Your task to perform on an android device: Open CNN.com Image 0: 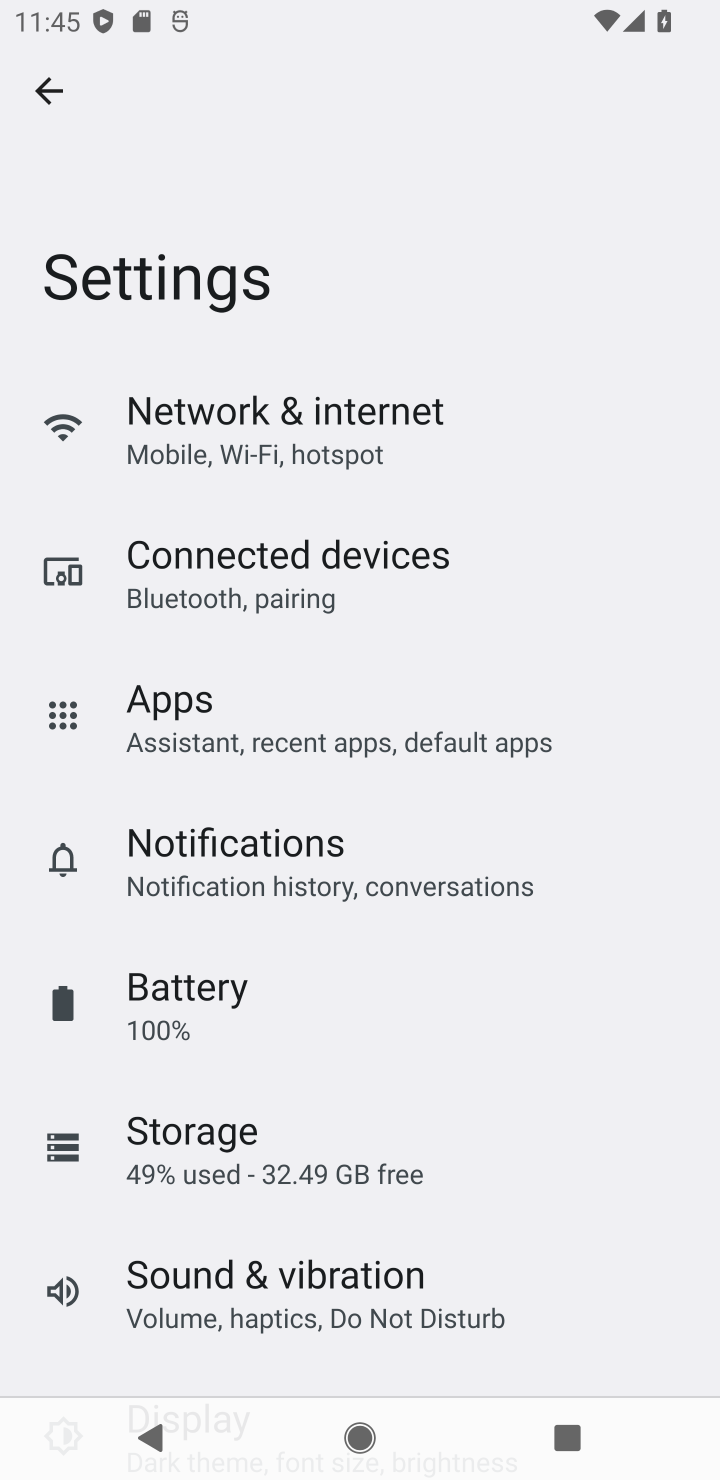
Step 0: press home button
Your task to perform on an android device: Open CNN.com Image 1: 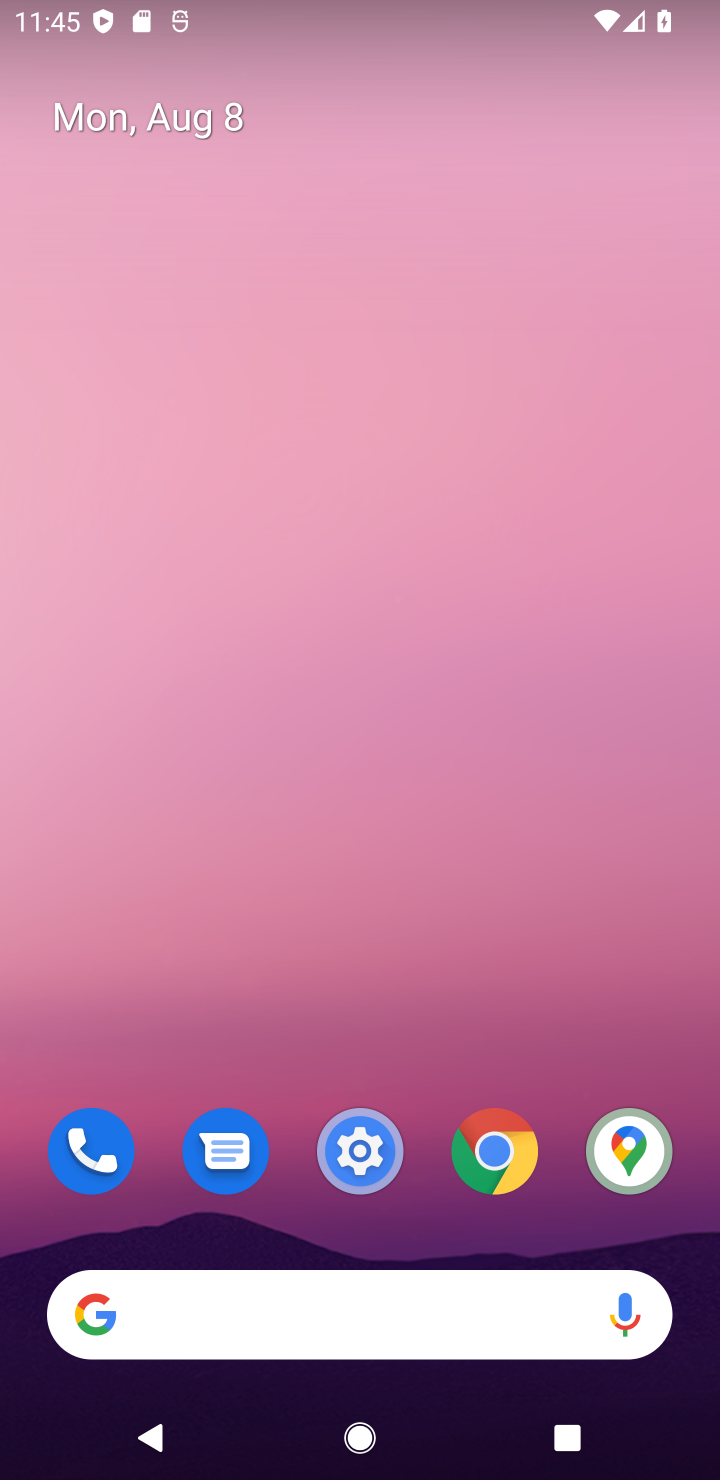
Step 1: drag from (322, 1270) to (109, 486)
Your task to perform on an android device: Open CNN.com Image 2: 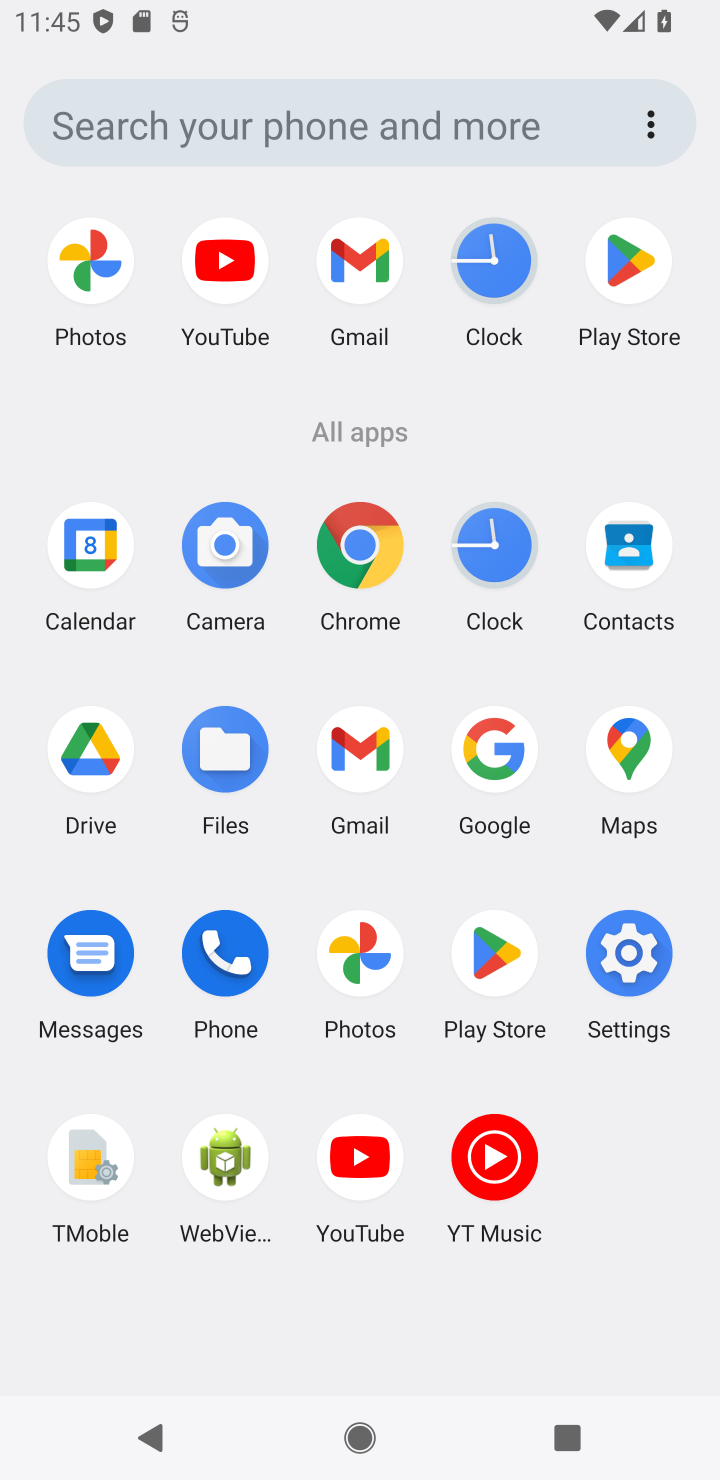
Step 2: click (479, 750)
Your task to perform on an android device: Open CNN.com Image 3: 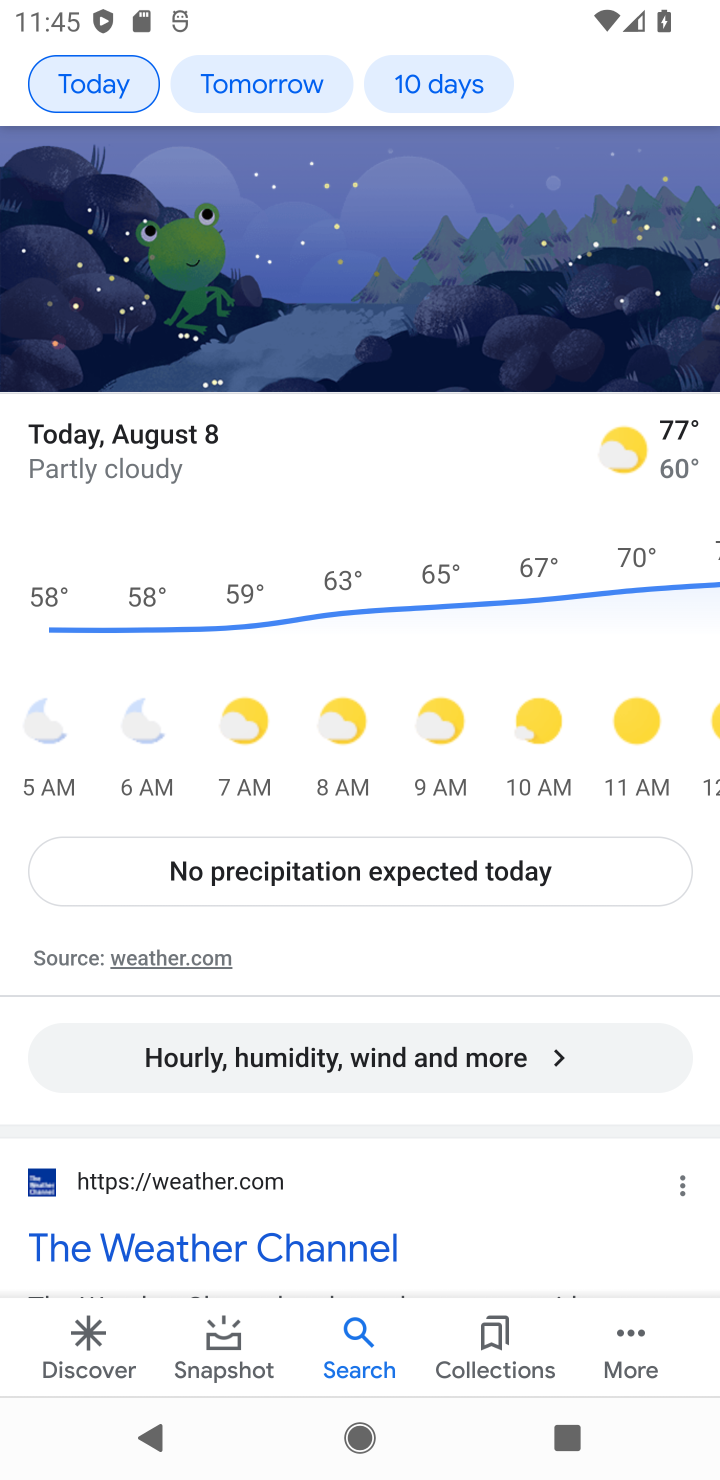
Step 3: drag from (405, 398) to (556, 1187)
Your task to perform on an android device: Open CNN.com Image 4: 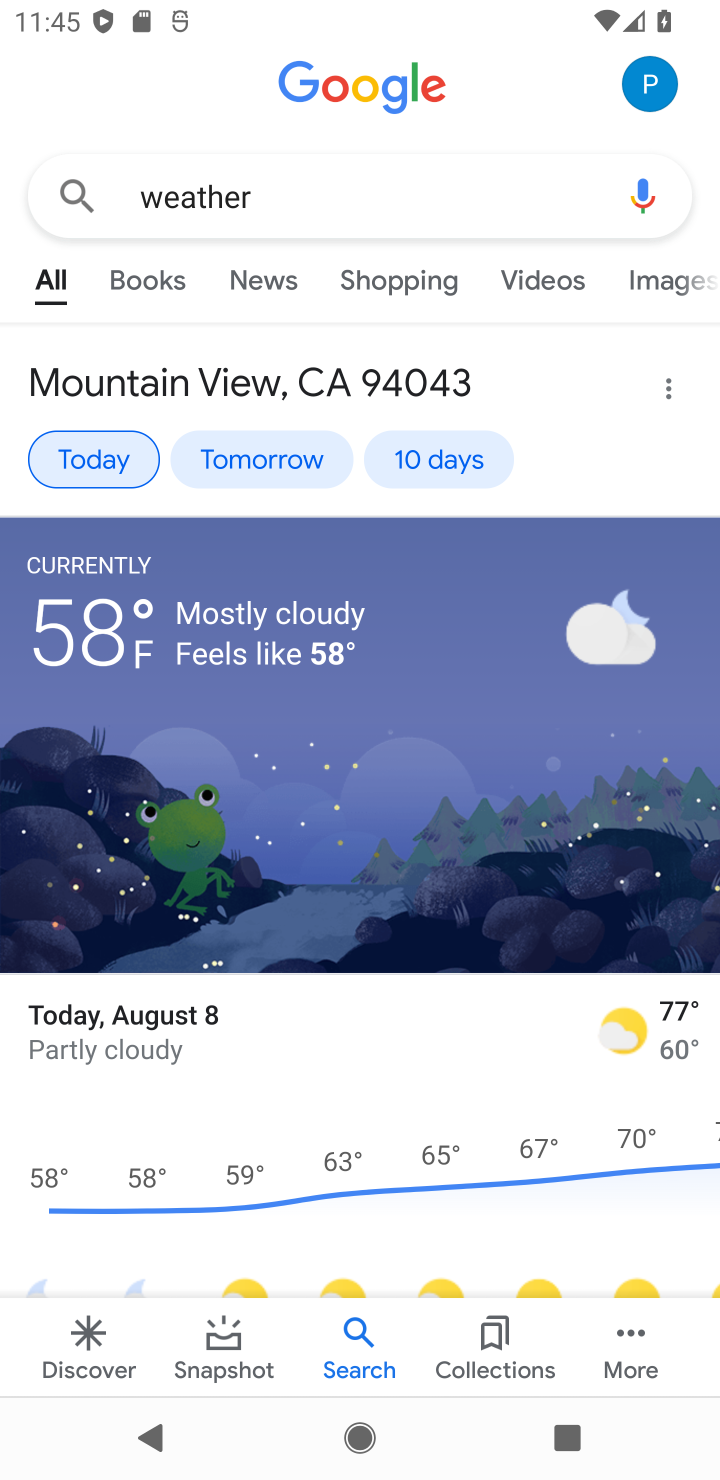
Step 4: click (268, 199)
Your task to perform on an android device: Open CNN.com Image 5: 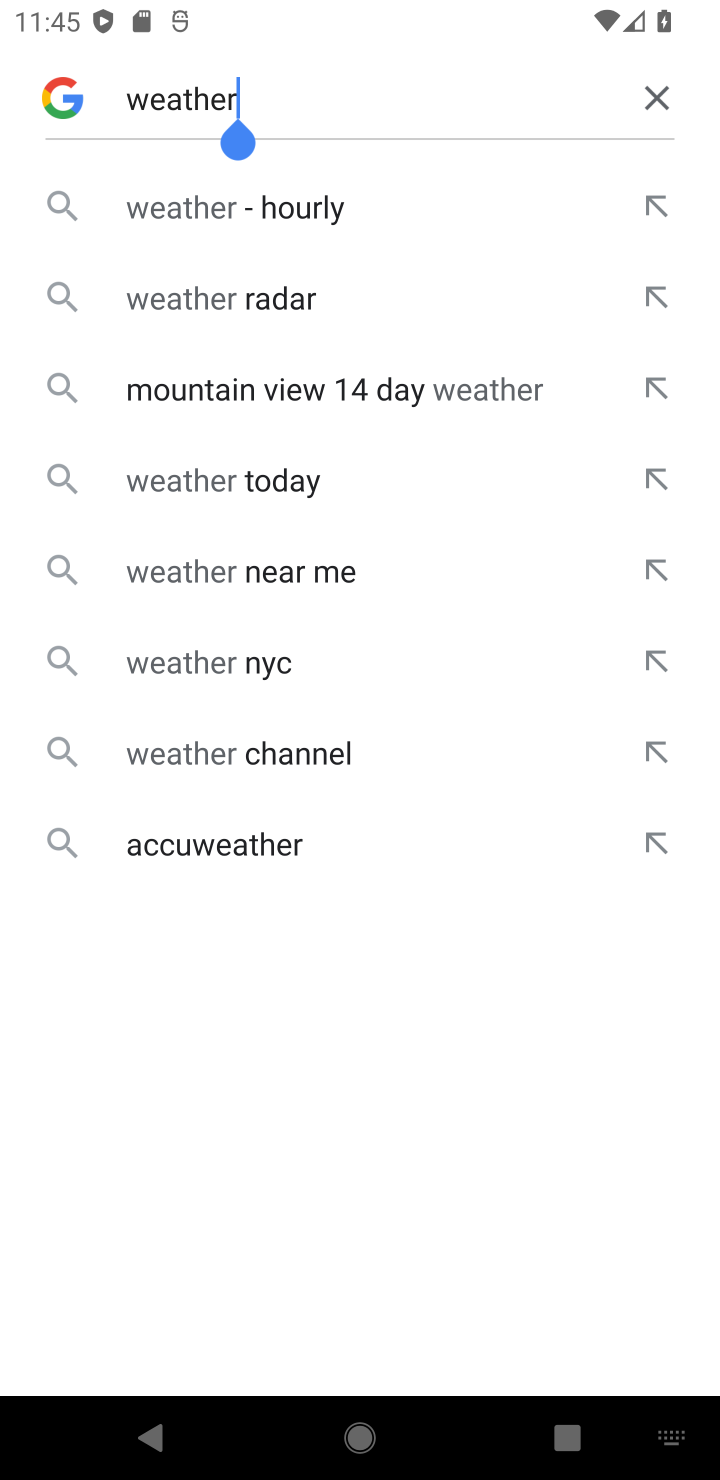
Step 5: click (650, 100)
Your task to perform on an android device: Open CNN.com Image 6: 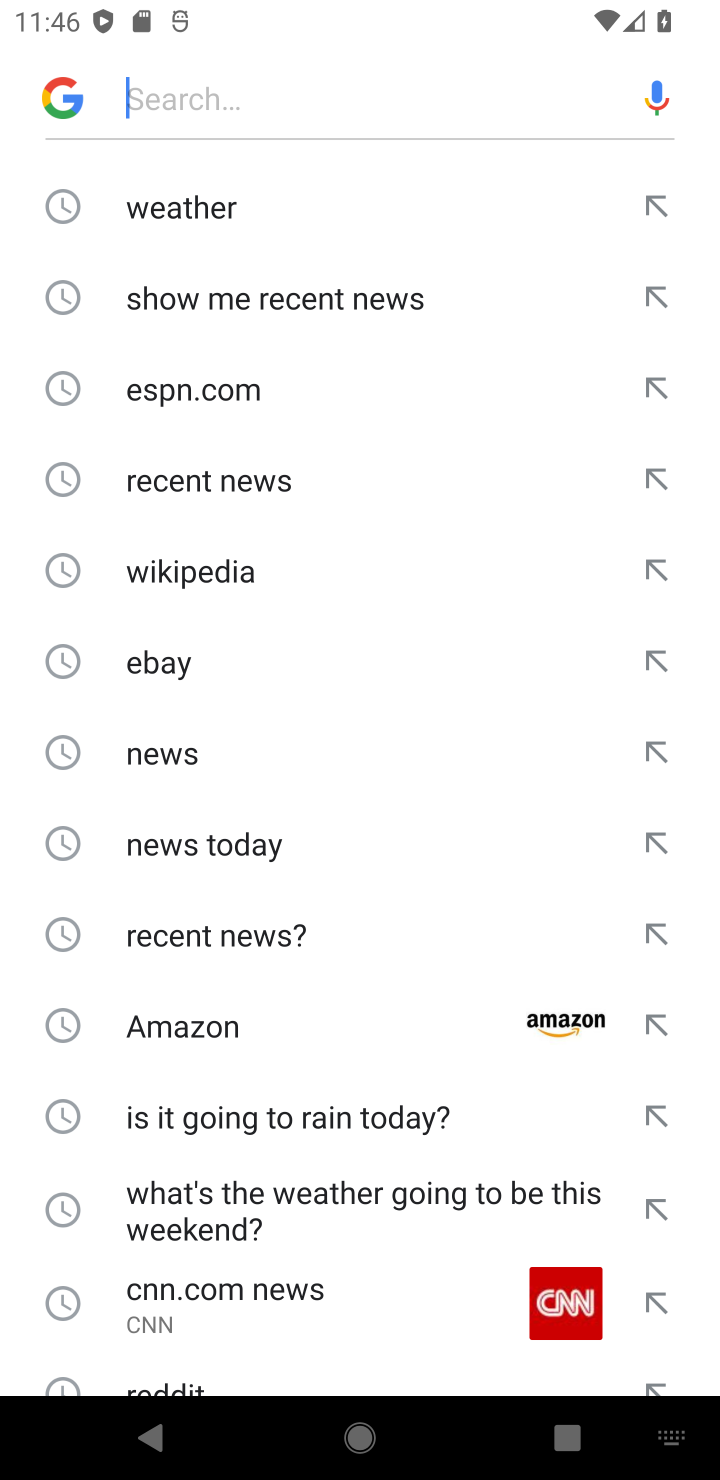
Step 6: drag from (347, 1077) to (275, 378)
Your task to perform on an android device: Open CNN.com Image 7: 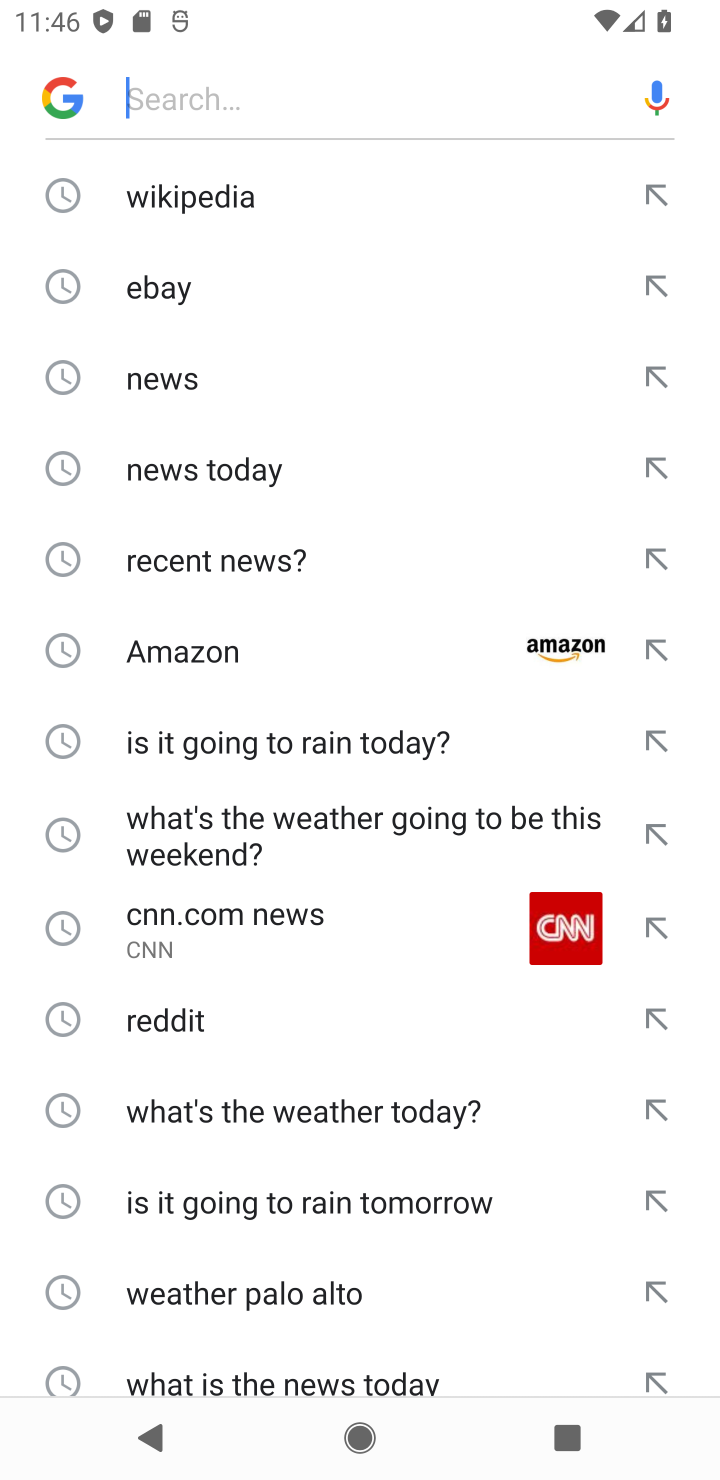
Step 7: drag from (392, 1334) to (318, 637)
Your task to perform on an android device: Open CNN.com Image 8: 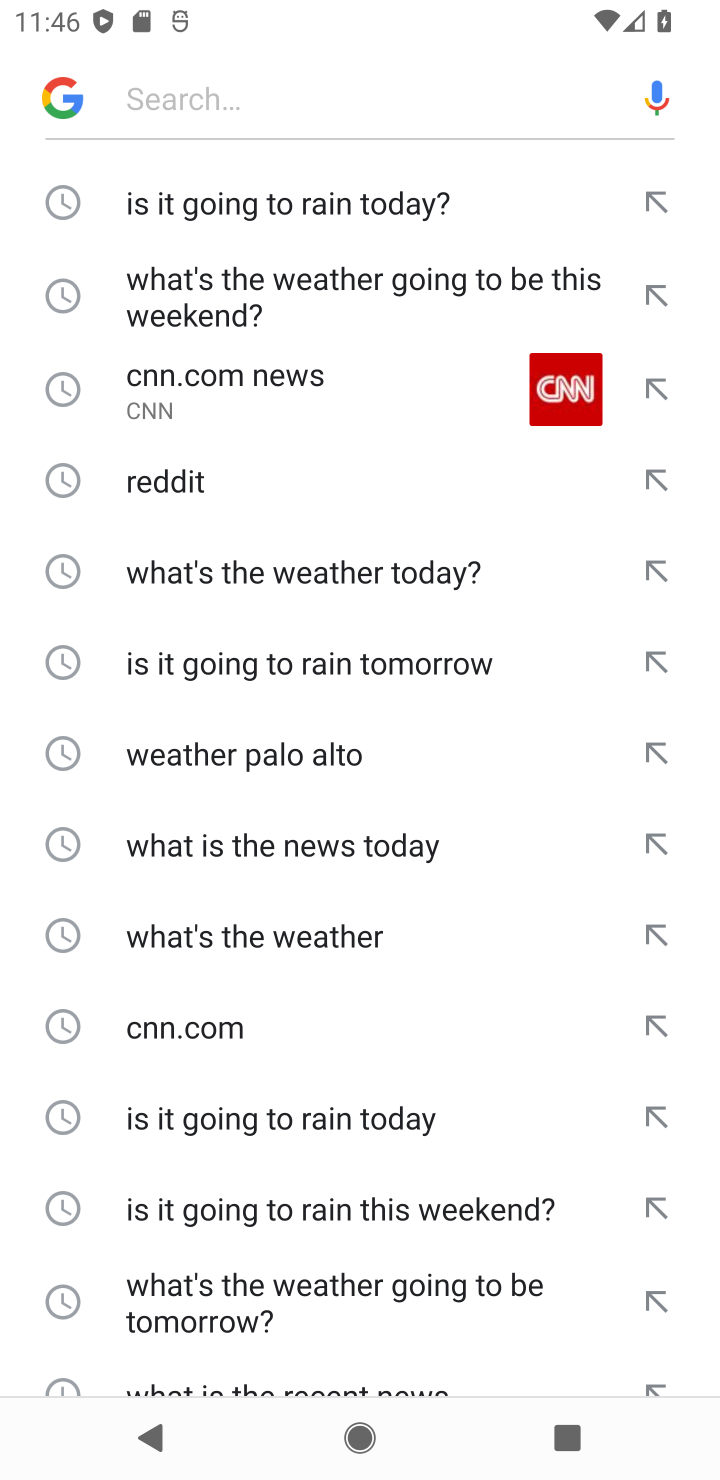
Step 8: click (244, 386)
Your task to perform on an android device: Open CNN.com Image 9: 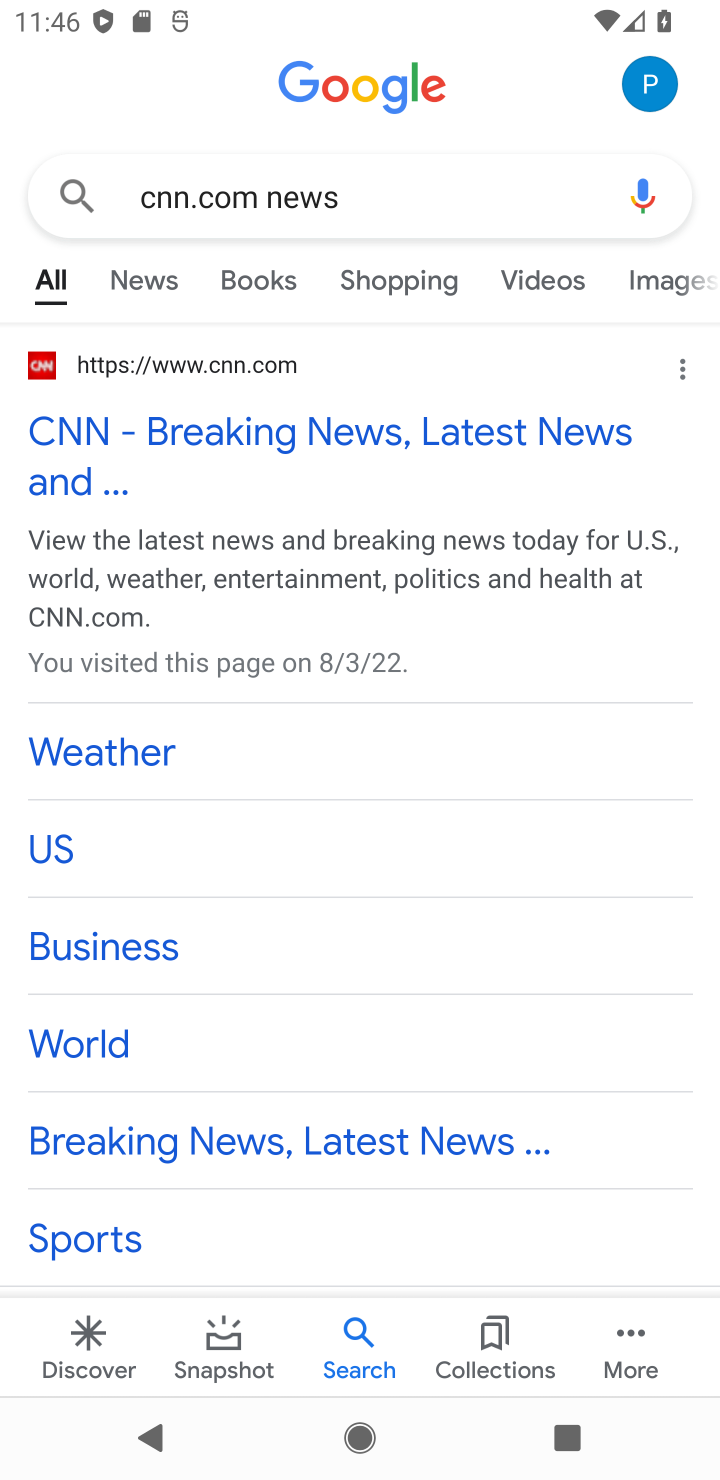
Step 9: click (374, 430)
Your task to perform on an android device: Open CNN.com Image 10: 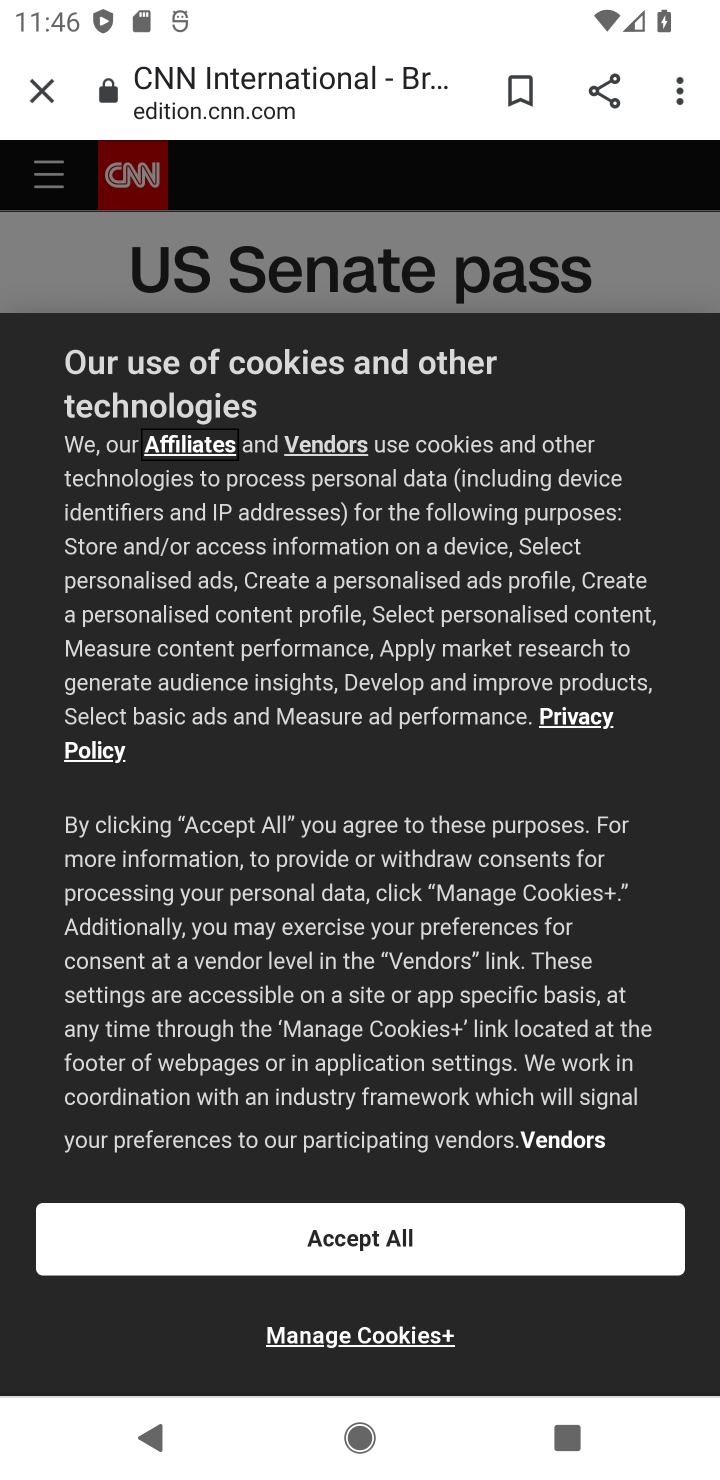
Step 10: task complete